Your task to perform on an android device: Go to privacy settings Image 0: 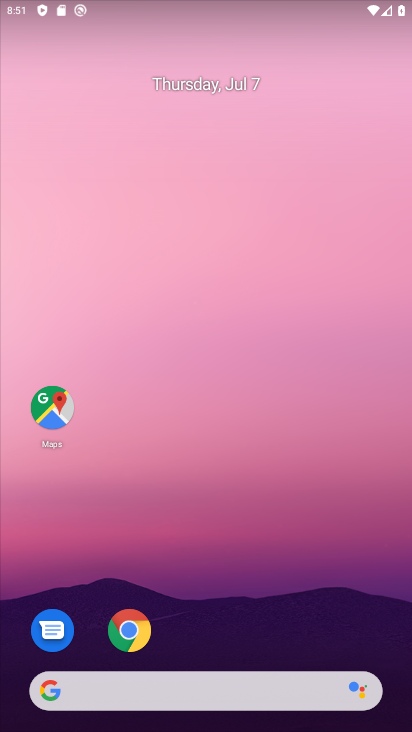
Step 0: click (326, 485)
Your task to perform on an android device: Go to privacy settings Image 1: 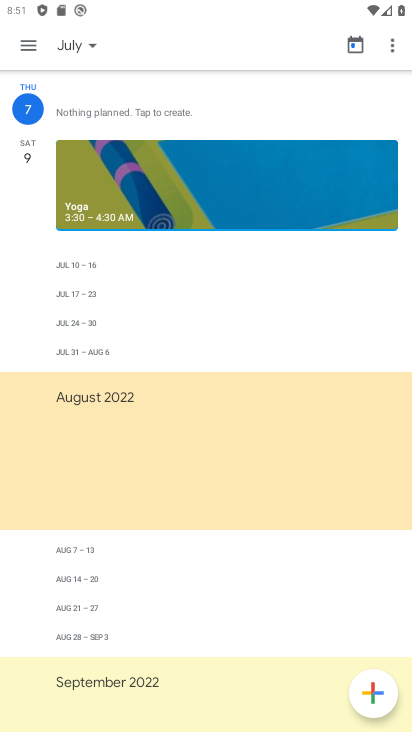
Step 1: drag from (220, 0) to (324, 439)
Your task to perform on an android device: Go to privacy settings Image 2: 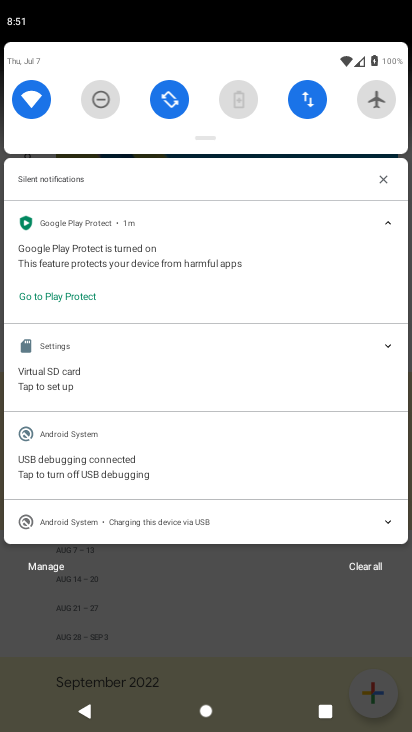
Step 2: press home button
Your task to perform on an android device: Go to privacy settings Image 3: 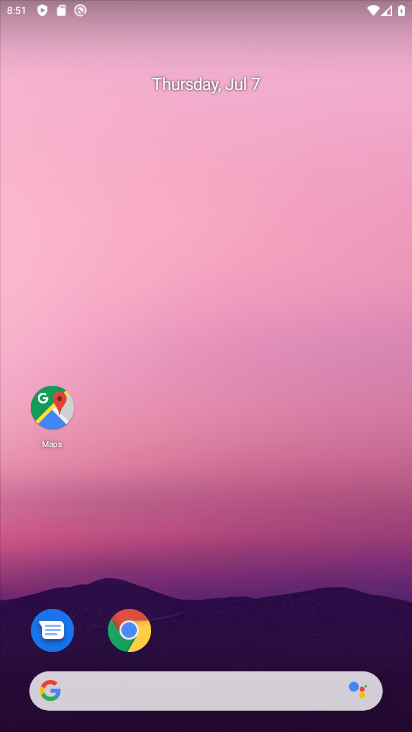
Step 3: drag from (224, 685) to (167, 334)
Your task to perform on an android device: Go to privacy settings Image 4: 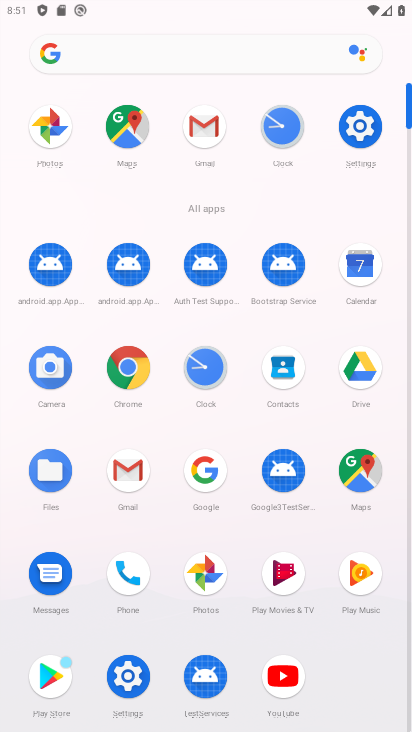
Step 4: click (349, 120)
Your task to perform on an android device: Go to privacy settings Image 5: 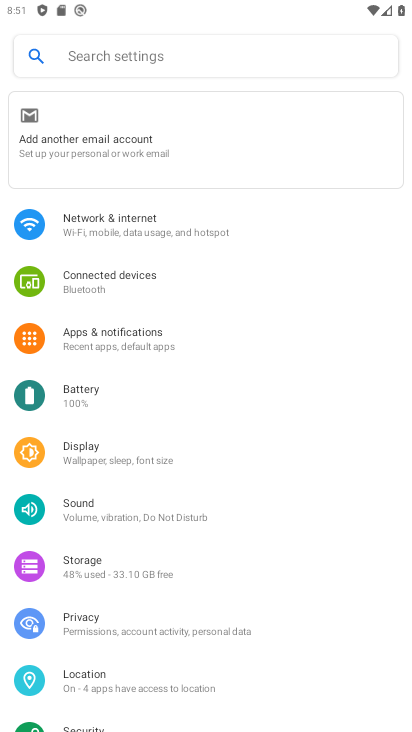
Step 5: click (87, 624)
Your task to perform on an android device: Go to privacy settings Image 6: 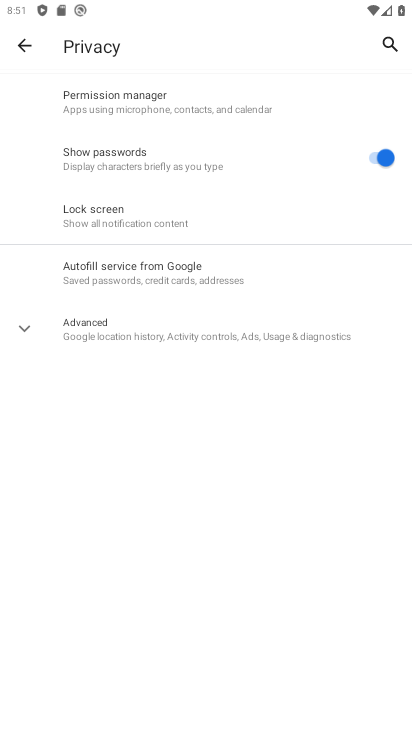
Step 6: click (120, 329)
Your task to perform on an android device: Go to privacy settings Image 7: 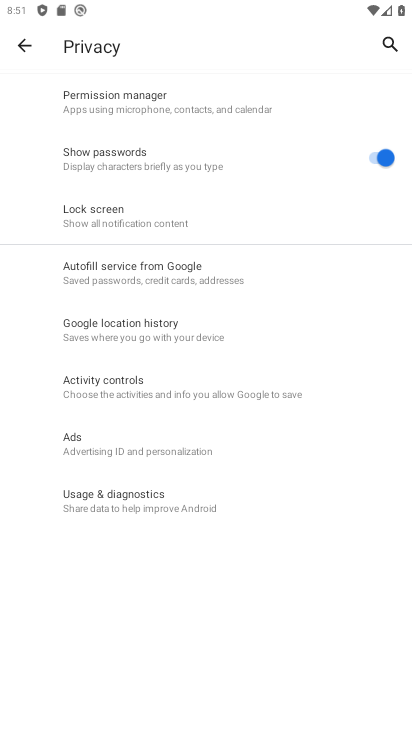
Step 7: task complete